Your task to perform on an android device: Go to battery settings Image 0: 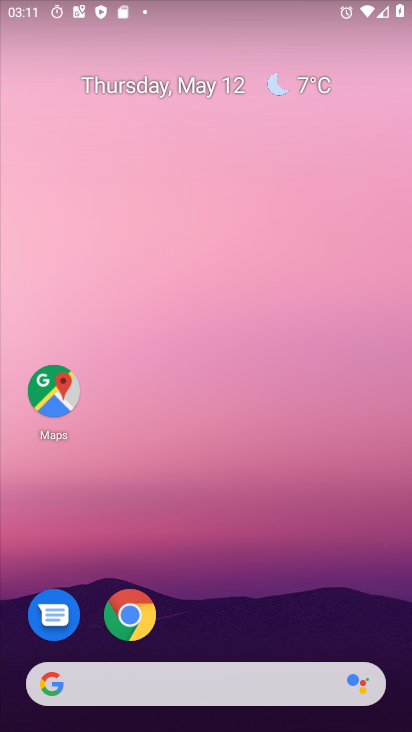
Step 0: drag from (259, 672) to (158, 2)
Your task to perform on an android device: Go to battery settings Image 1: 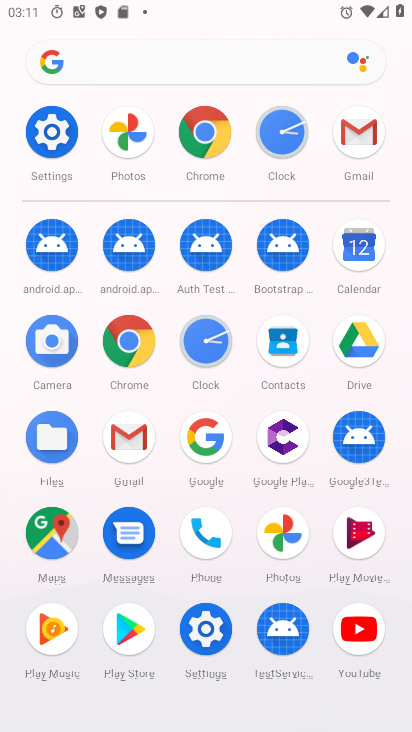
Step 1: click (53, 140)
Your task to perform on an android device: Go to battery settings Image 2: 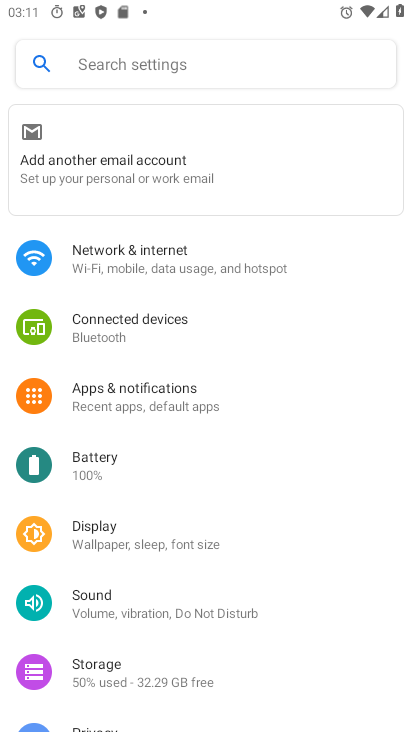
Step 2: drag from (206, 627) to (225, 22)
Your task to perform on an android device: Go to battery settings Image 3: 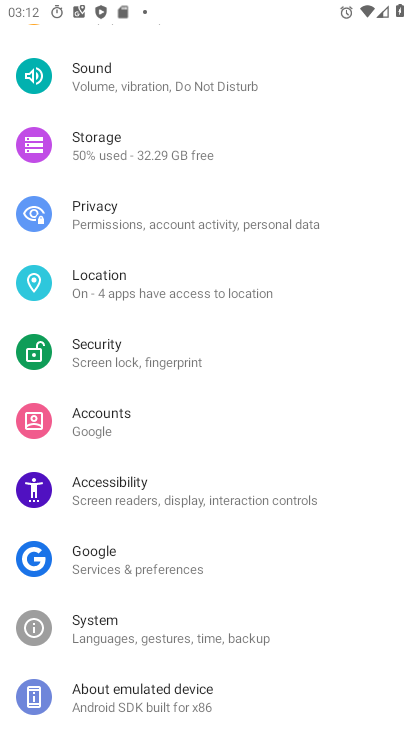
Step 3: drag from (120, 174) to (105, 519)
Your task to perform on an android device: Go to battery settings Image 4: 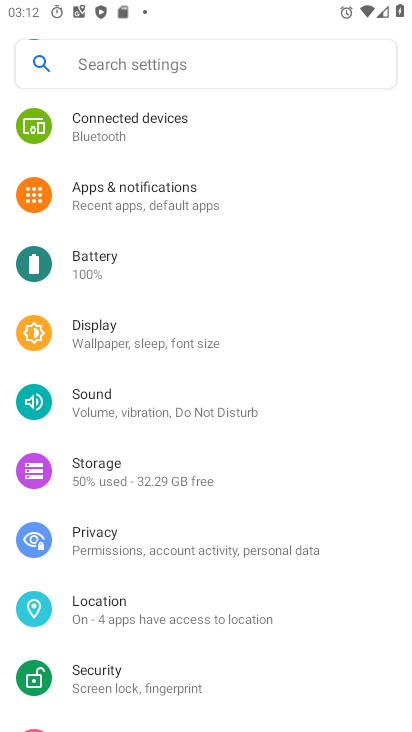
Step 4: click (103, 277)
Your task to perform on an android device: Go to battery settings Image 5: 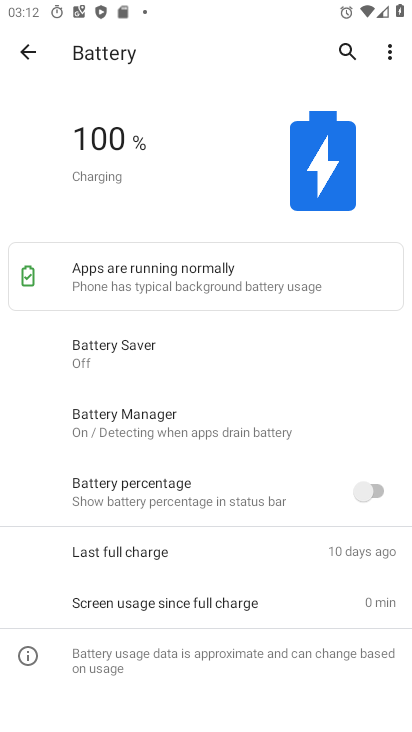
Step 5: task complete